Your task to perform on an android device: clear history in the chrome app Image 0: 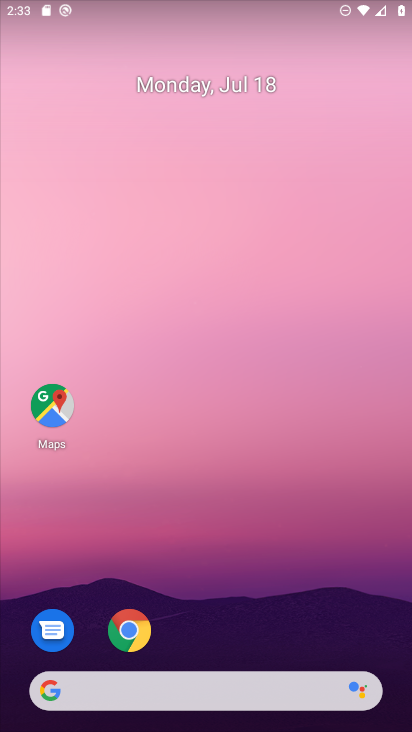
Step 0: press home button
Your task to perform on an android device: clear history in the chrome app Image 1: 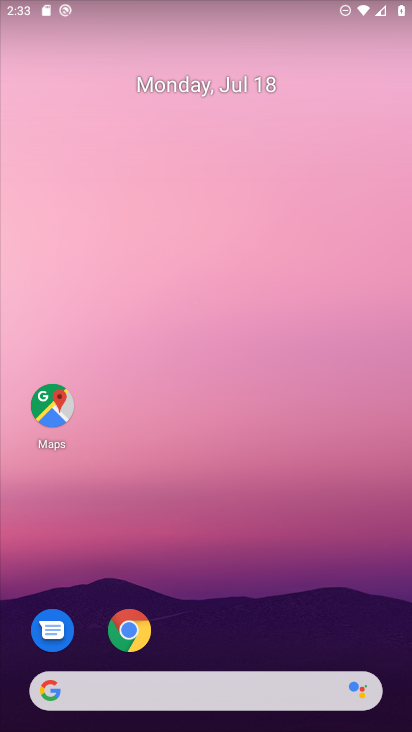
Step 1: drag from (264, 647) to (298, 5)
Your task to perform on an android device: clear history in the chrome app Image 2: 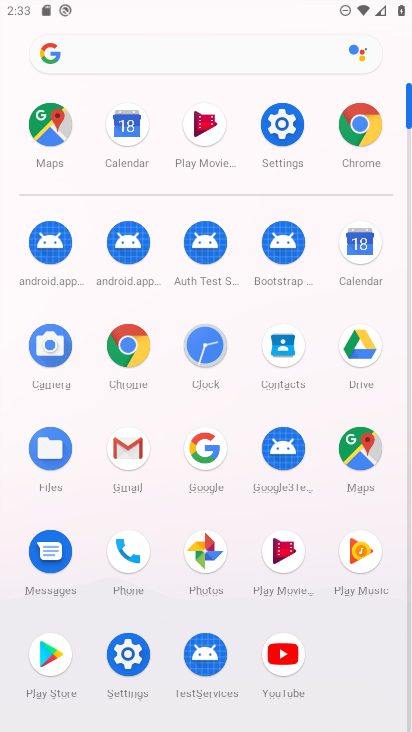
Step 2: click (360, 133)
Your task to perform on an android device: clear history in the chrome app Image 3: 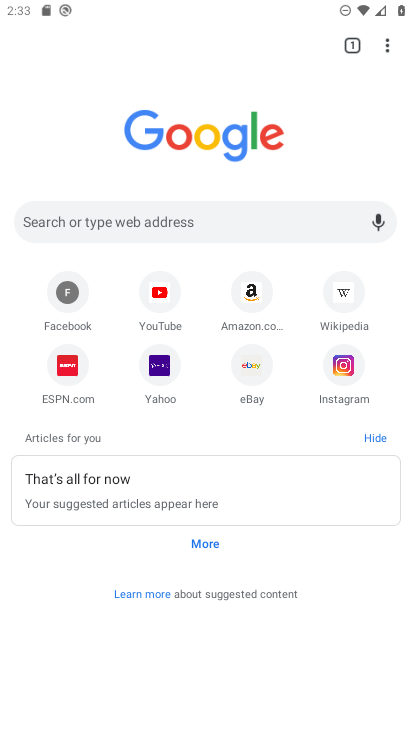
Step 3: task complete